Your task to perform on an android device: What's the weather? Image 0: 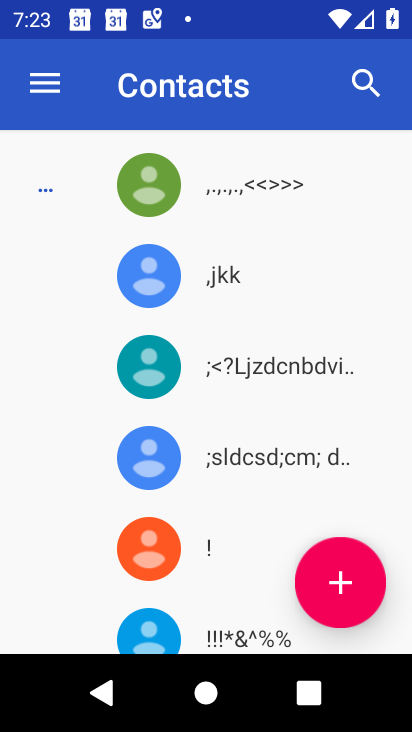
Step 0: press home button
Your task to perform on an android device: What's the weather? Image 1: 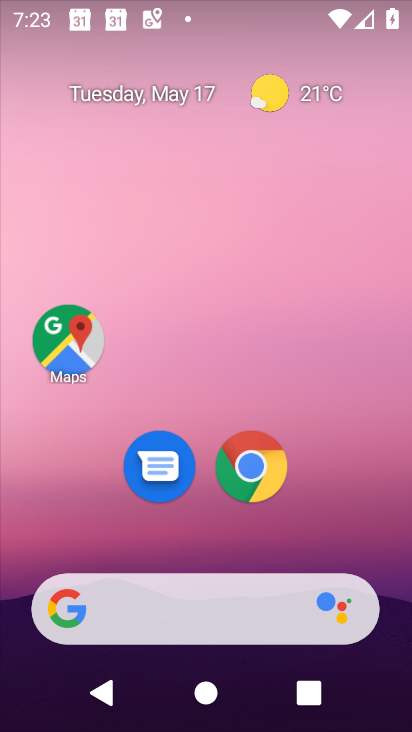
Step 1: click (325, 92)
Your task to perform on an android device: What's the weather? Image 2: 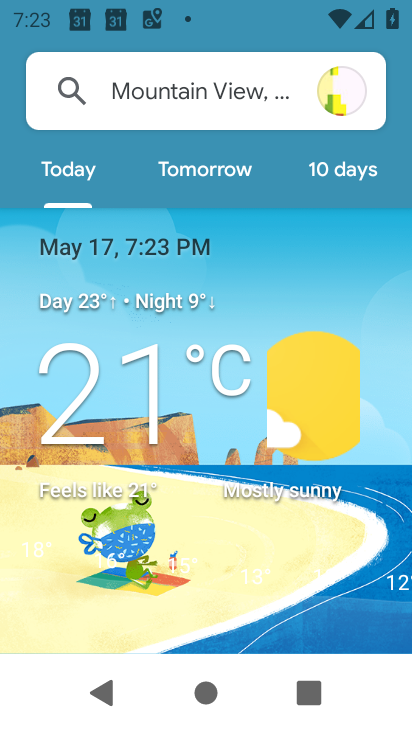
Step 2: task complete